Your task to perform on an android device: Empty the shopping cart on amazon.com. Image 0: 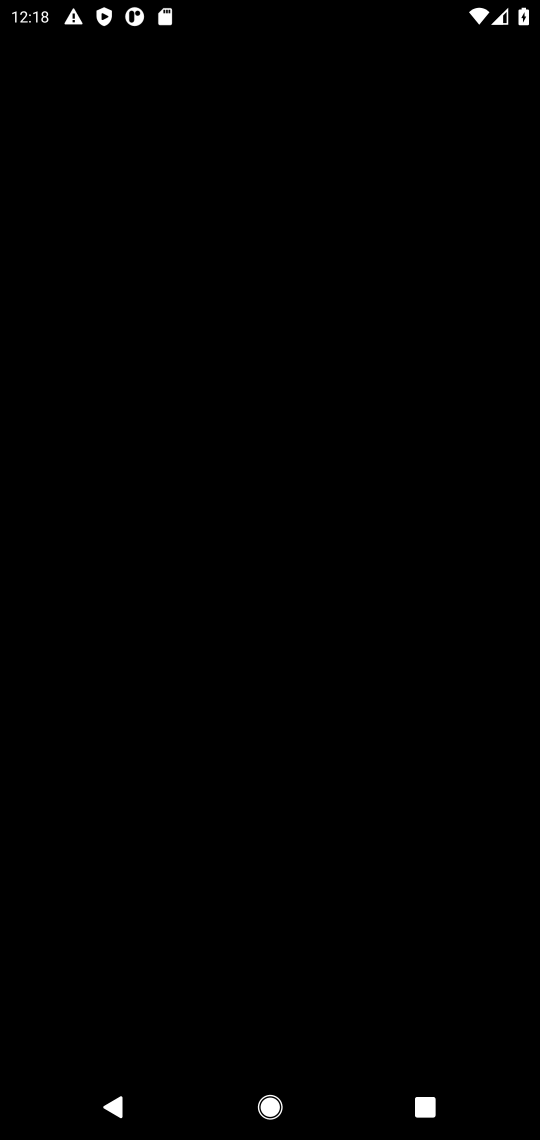
Step 0: press home button
Your task to perform on an android device: Empty the shopping cart on amazon.com. Image 1: 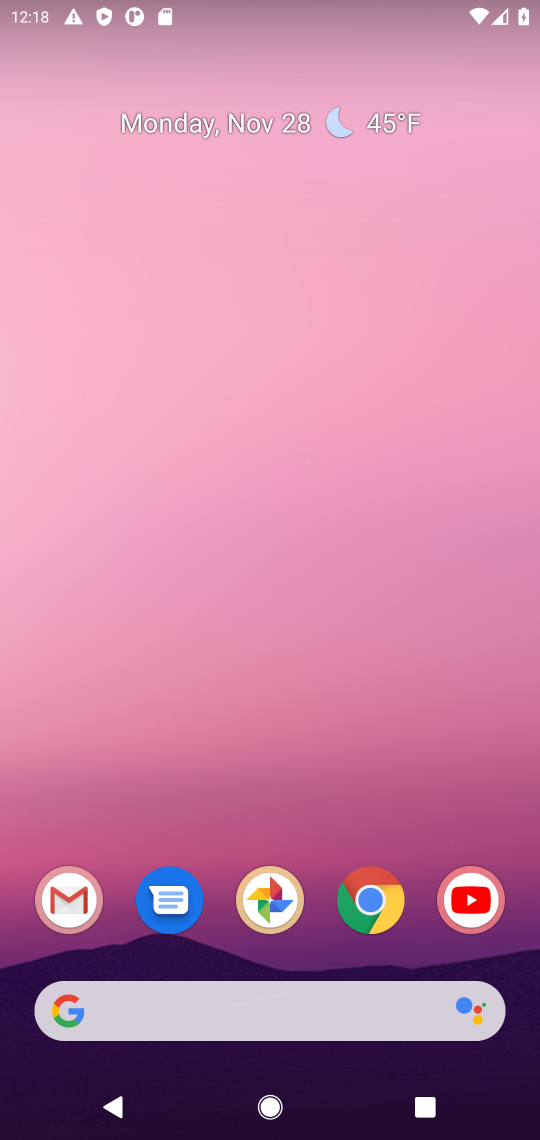
Step 1: click (382, 904)
Your task to perform on an android device: Empty the shopping cart on amazon.com. Image 2: 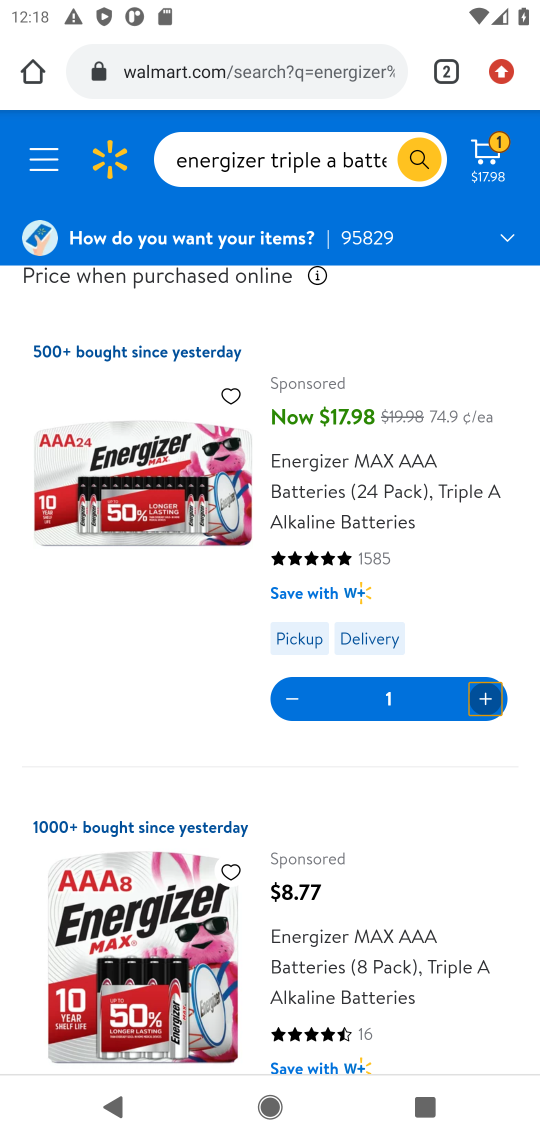
Step 2: click (221, 67)
Your task to perform on an android device: Empty the shopping cart on amazon.com. Image 3: 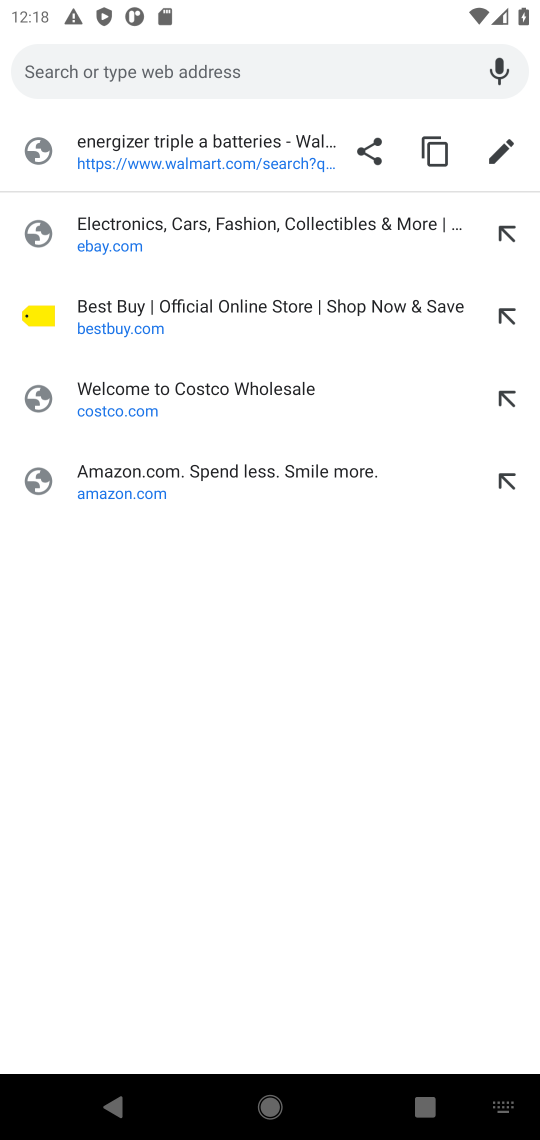
Step 3: click (119, 472)
Your task to perform on an android device: Empty the shopping cart on amazon.com. Image 4: 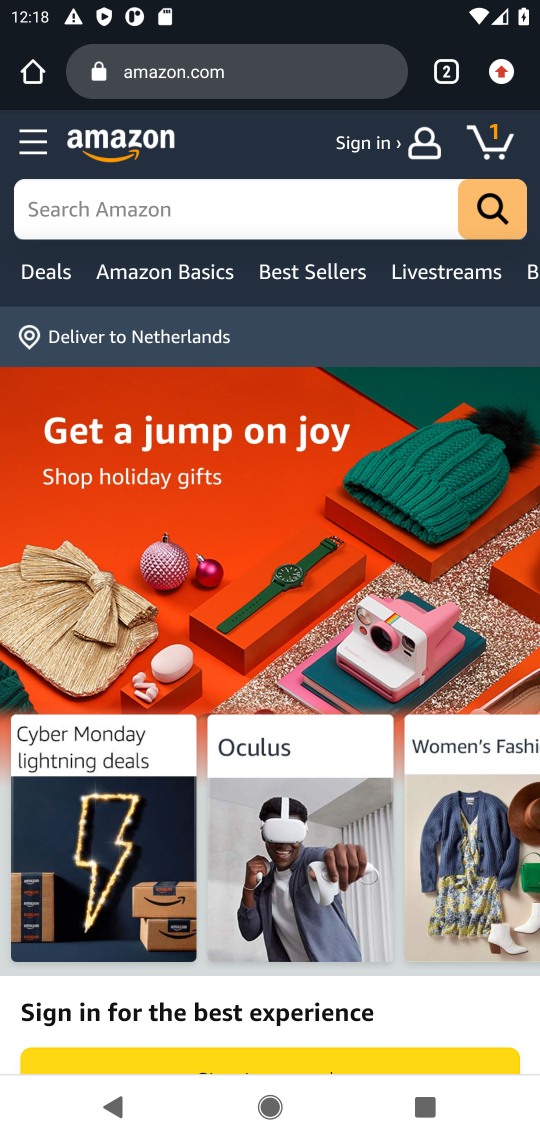
Step 4: click (491, 149)
Your task to perform on an android device: Empty the shopping cart on amazon.com. Image 5: 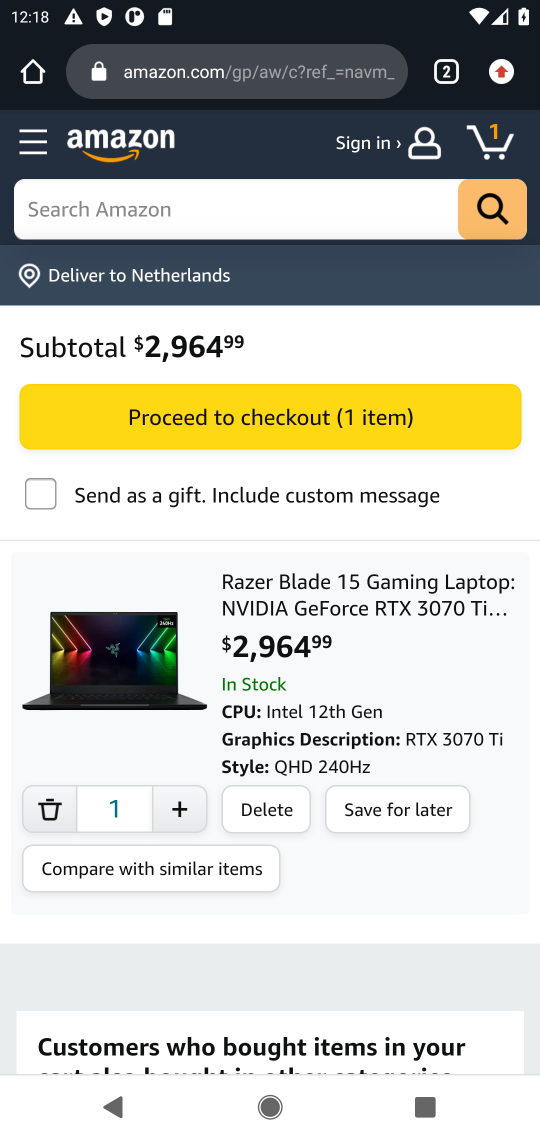
Step 5: click (50, 813)
Your task to perform on an android device: Empty the shopping cart on amazon.com. Image 6: 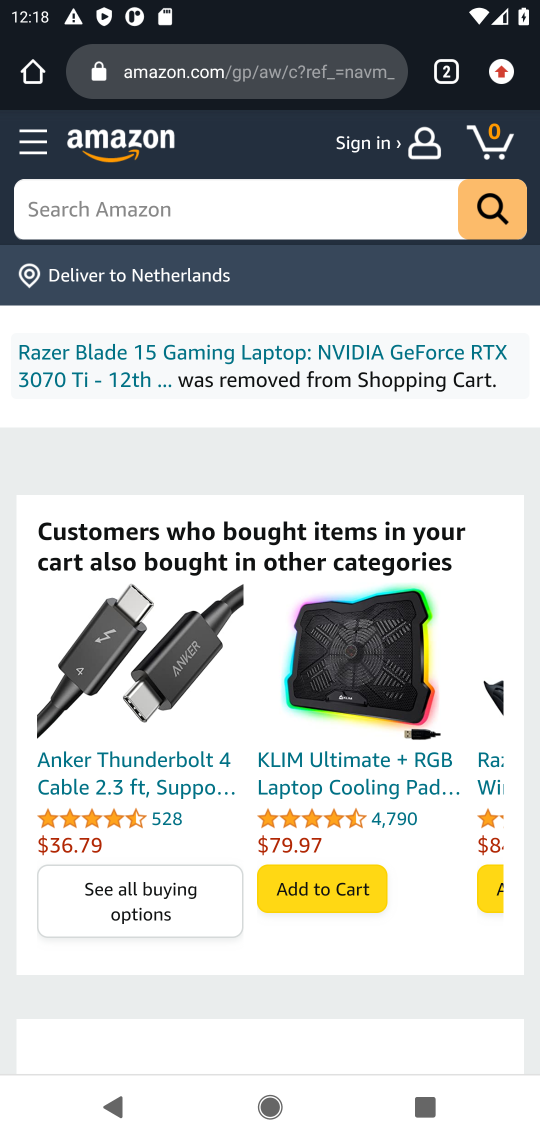
Step 6: task complete